Your task to perform on an android device: Open my contact list Image 0: 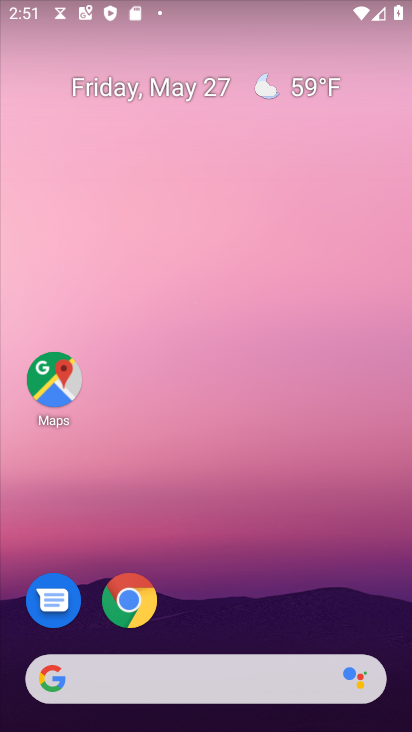
Step 0: drag from (255, 593) to (251, 95)
Your task to perform on an android device: Open my contact list Image 1: 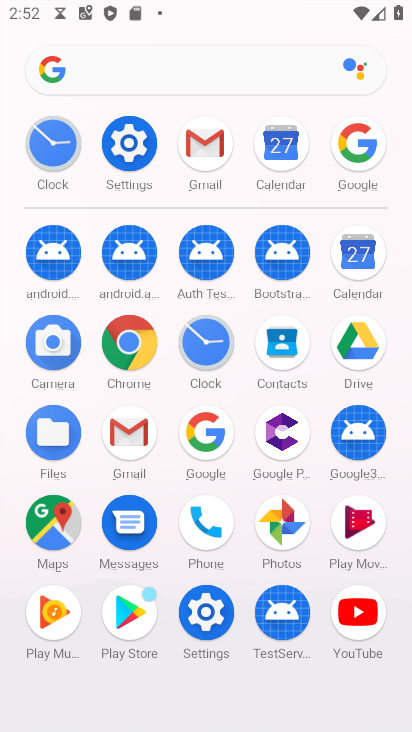
Step 1: click (282, 341)
Your task to perform on an android device: Open my contact list Image 2: 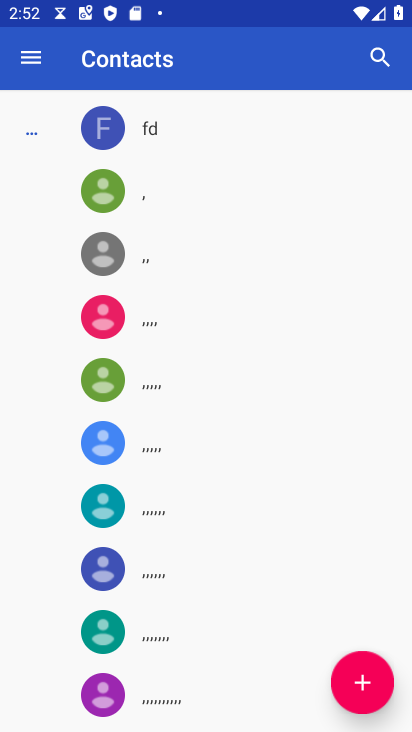
Step 2: task complete